Your task to perform on an android device: read, delete, or share a saved page in the chrome app Image 0: 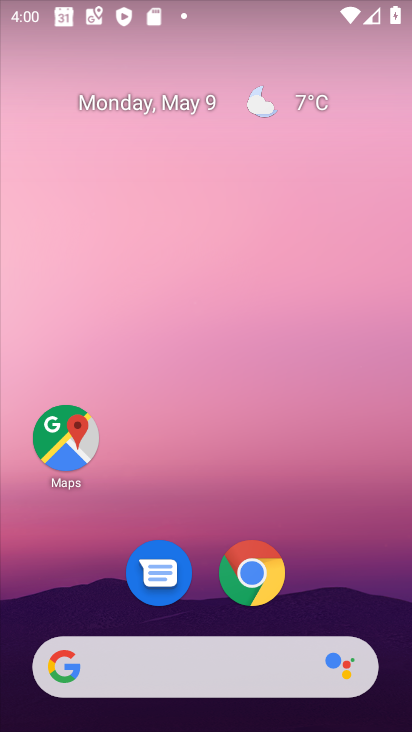
Step 0: click (260, 584)
Your task to perform on an android device: read, delete, or share a saved page in the chrome app Image 1: 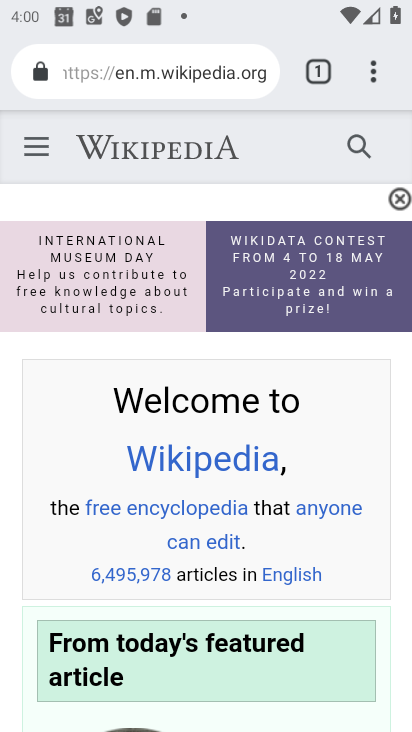
Step 1: click (370, 67)
Your task to perform on an android device: read, delete, or share a saved page in the chrome app Image 2: 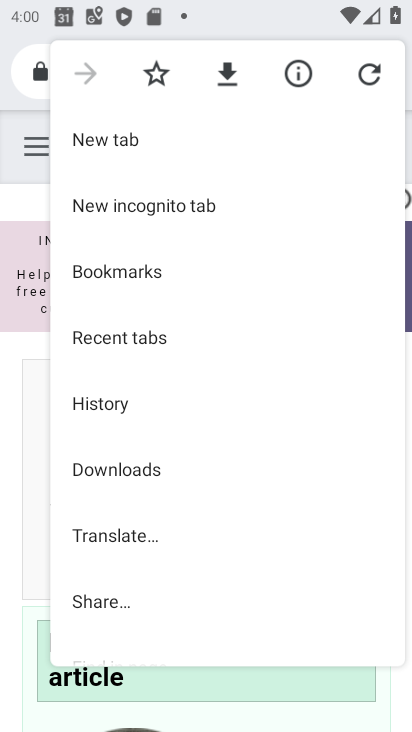
Step 2: click (71, 467)
Your task to perform on an android device: read, delete, or share a saved page in the chrome app Image 3: 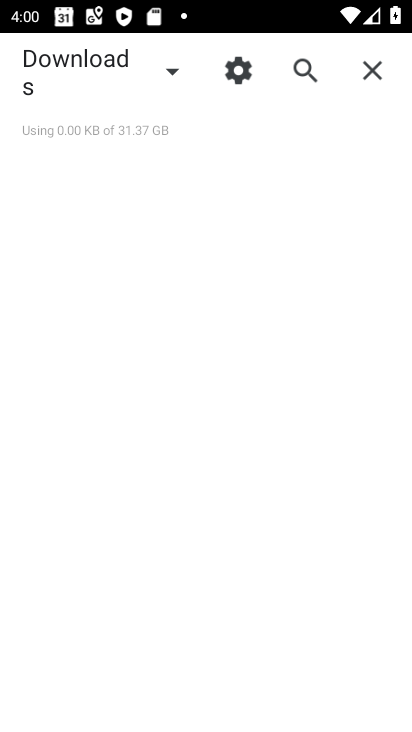
Step 3: click (167, 85)
Your task to perform on an android device: read, delete, or share a saved page in the chrome app Image 4: 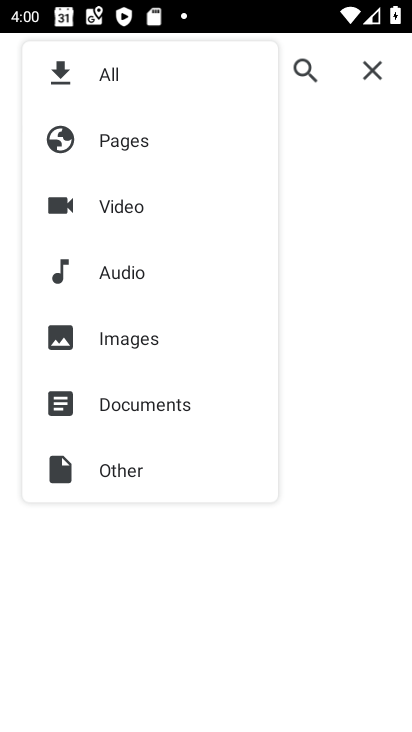
Step 4: click (134, 146)
Your task to perform on an android device: read, delete, or share a saved page in the chrome app Image 5: 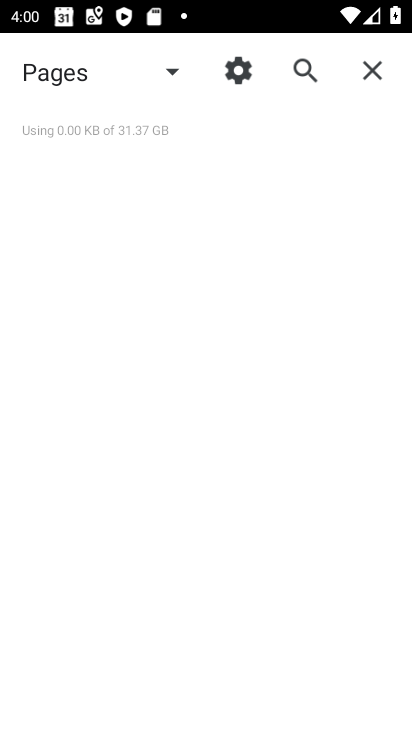
Step 5: task complete